Your task to perform on an android device: Open battery settings Image 0: 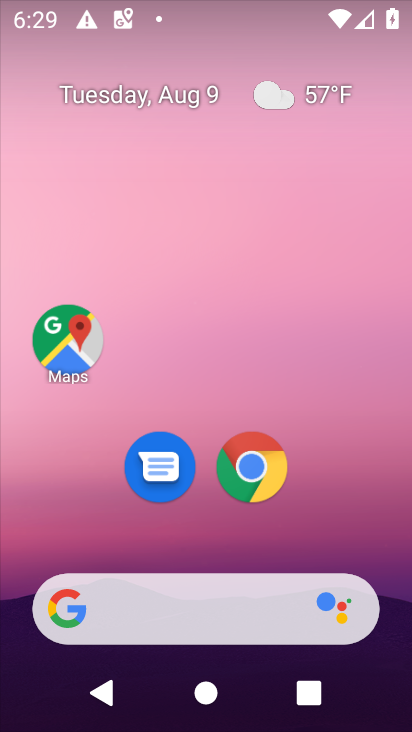
Step 0: drag from (202, 538) to (154, 237)
Your task to perform on an android device: Open battery settings Image 1: 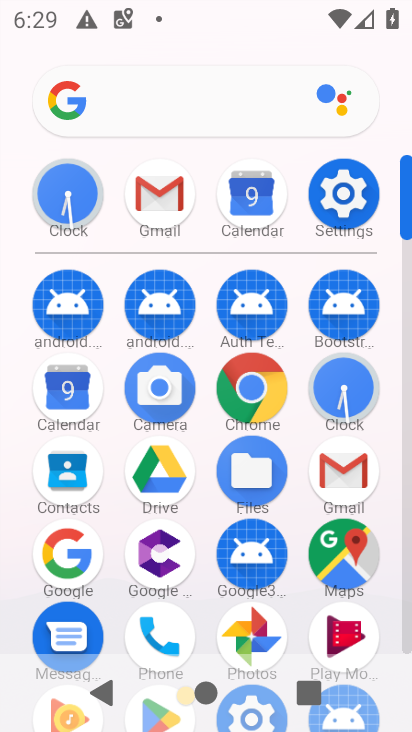
Step 1: click (347, 190)
Your task to perform on an android device: Open battery settings Image 2: 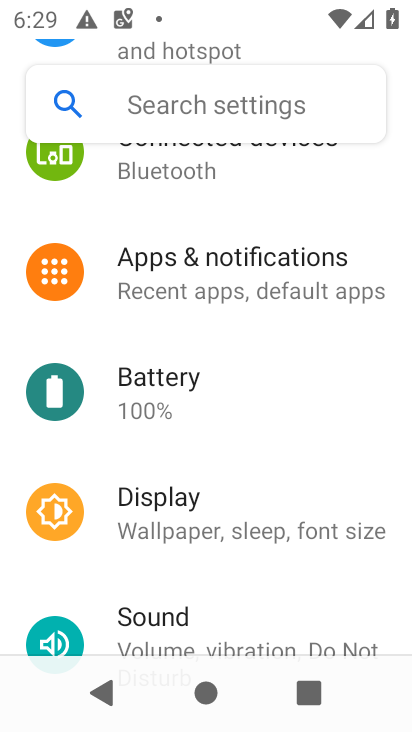
Step 2: click (148, 405)
Your task to perform on an android device: Open battery settings Image 3: 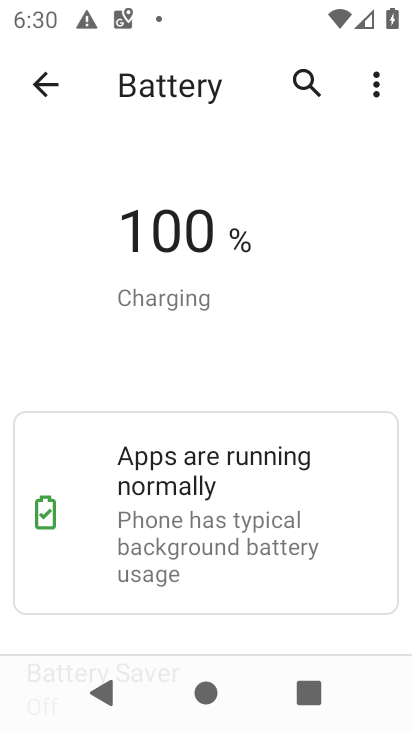
Step 3: task complete